Your task to perform on an android device: check the backup settings in the google photos Image 0: 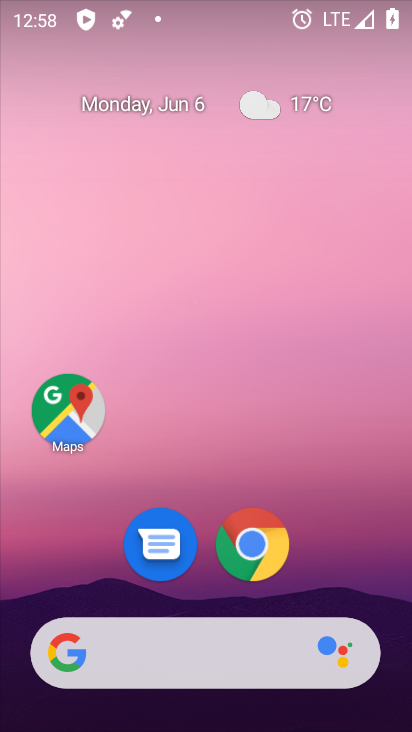
Step 0: drag from (402, 607) to (288, 188)
Your task to perform on an android device: check the backup settings in the google photos Image 1: 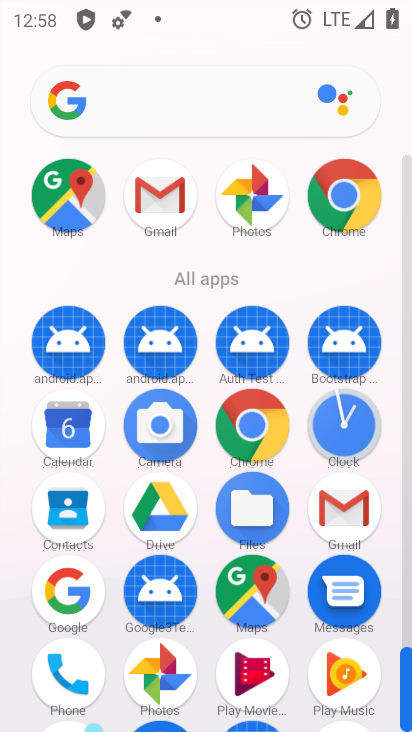
Step 1: click (255, 216)
Your task to perform on an android device: check the backup settings in the google photos Image 2: 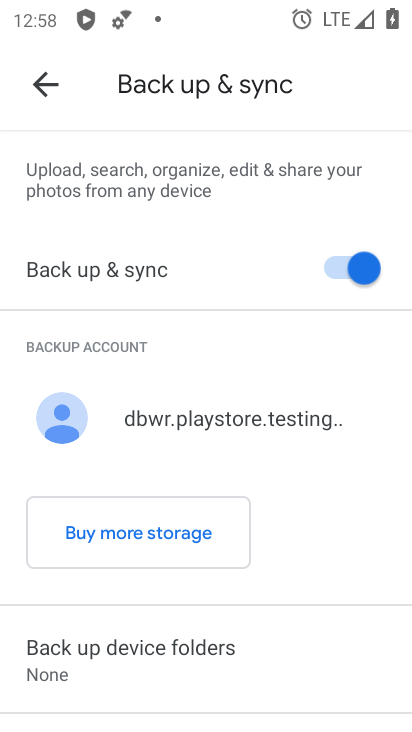
Step 2: task complete